Your task to perform on an android device: Open Google Chrome Image 0: 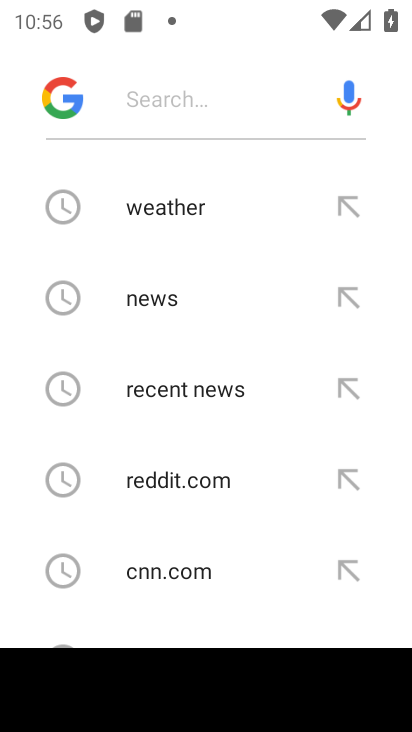
Step 0: press home button
Your task to perform on an android device: Open Google Chrome Image 1: 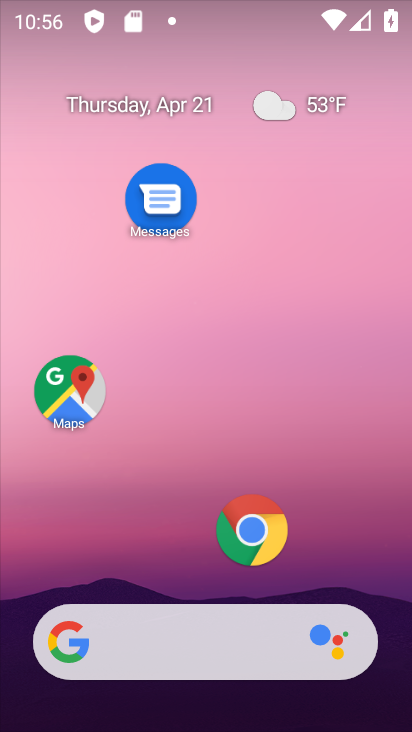
Step 1: click (246, 525)
Your task to perform on an android device: Open Google Chrome Image 2: 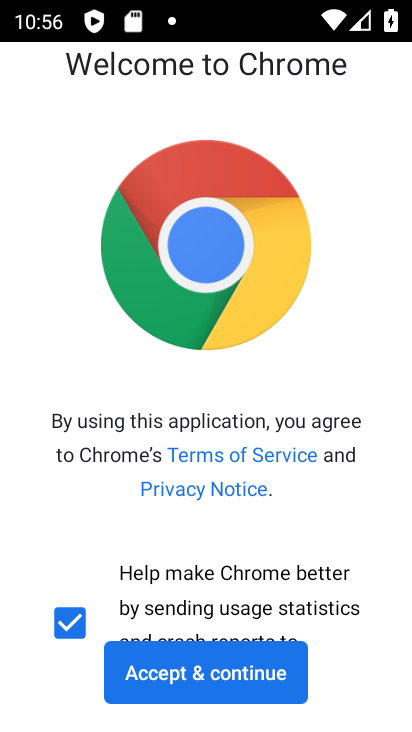
Step 2: click (232, 673)
Your task to perform on an android device: Open Google Chrome Image 3: 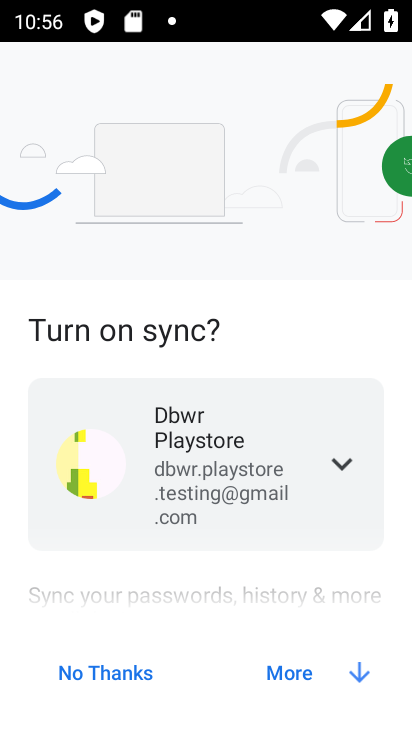
Step 3: click (288, 669)
Your task to perform on an android device: Open Google Chrome Image 4: 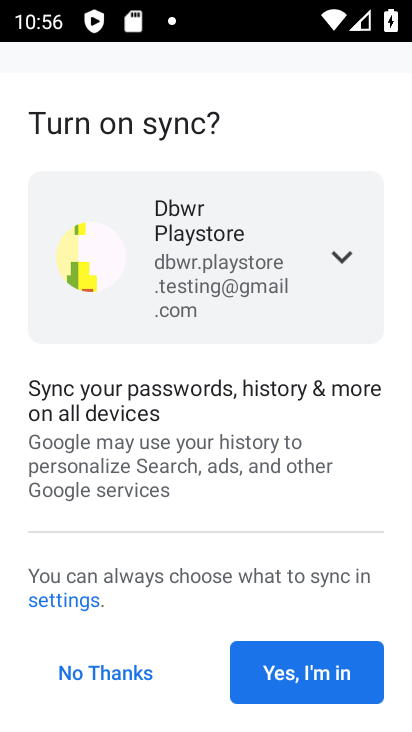
Step 4: click (288, 669)
Your task to perform on an android device: Open Google Chrome Image 5: 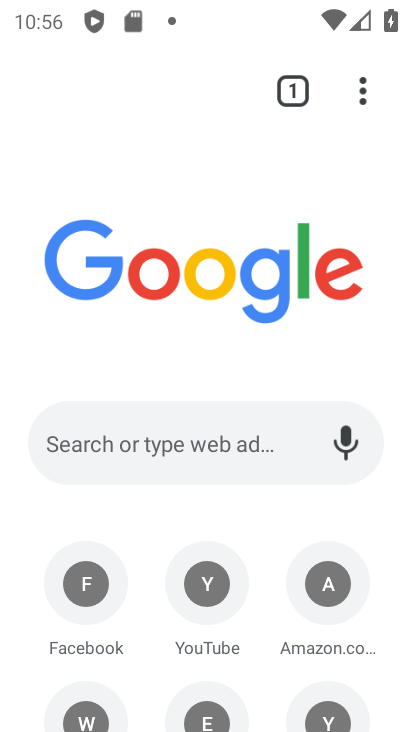
Step 5: task complete